Your task to perform on an android device: change text size in settings app Image 0: 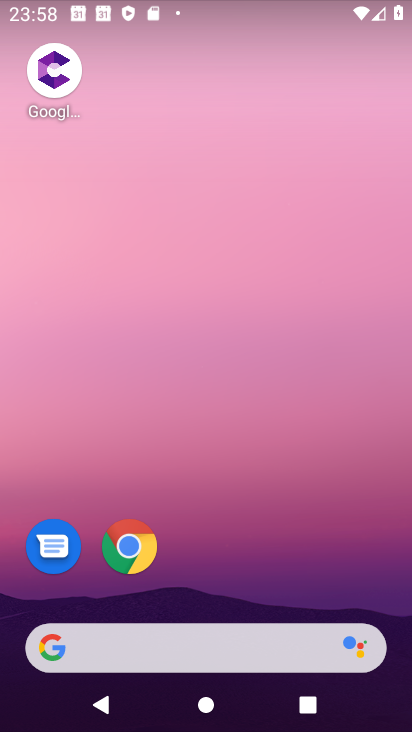
Step 0: drag from (235, 639) to (182, 85)
Your task to perform on an android device: change text size in settings app Image 1: 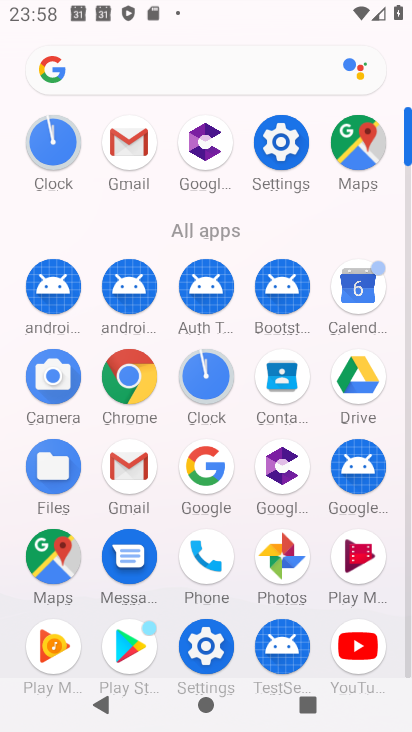
Step 1: click (296, 129)
Your task to perform on an android device: change text size in settings app Image 2: 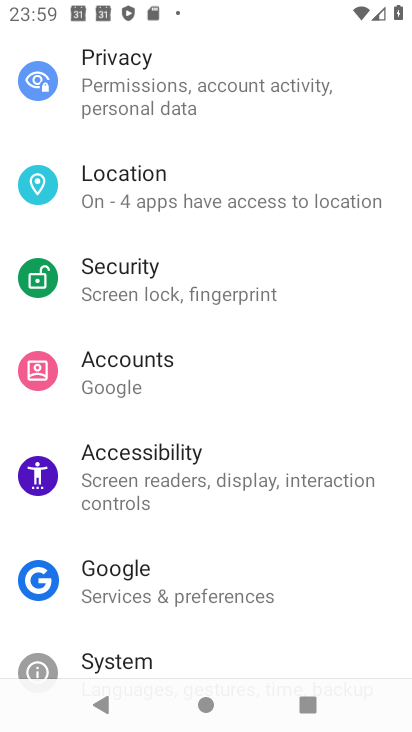
Step 2: drag from (157, 190) to (159, 567)
Your task to perform on an android device: change text size in settings app Image 3: 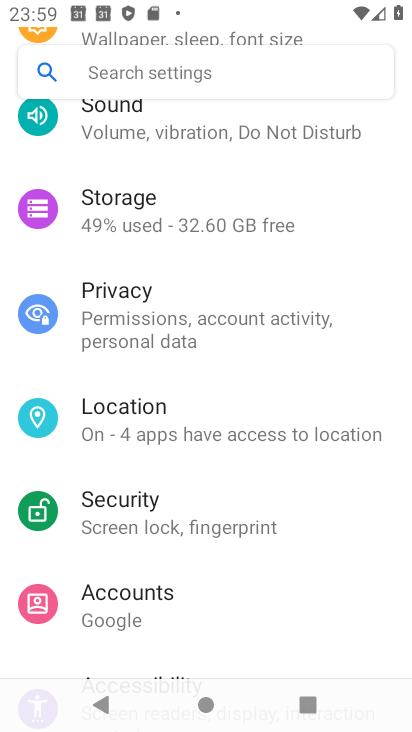
Step 3: drag from (147, 287) to (172, 588)
Your task to perform on an android device: change text size in settings app Image 4: 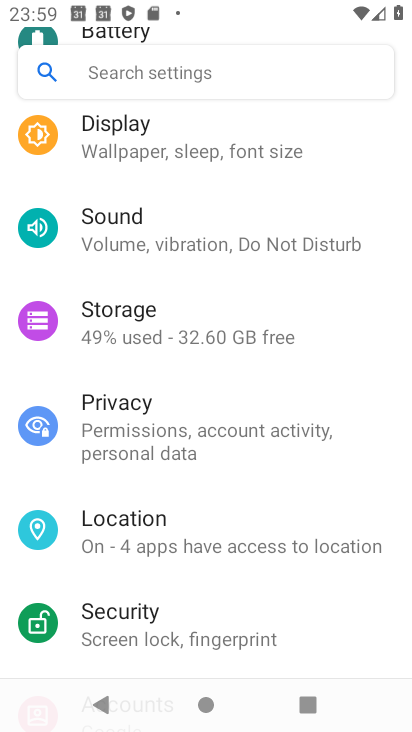
Step 4: click (132, 142)
Your task to perform on an android device: change text size in settings app Image 5: 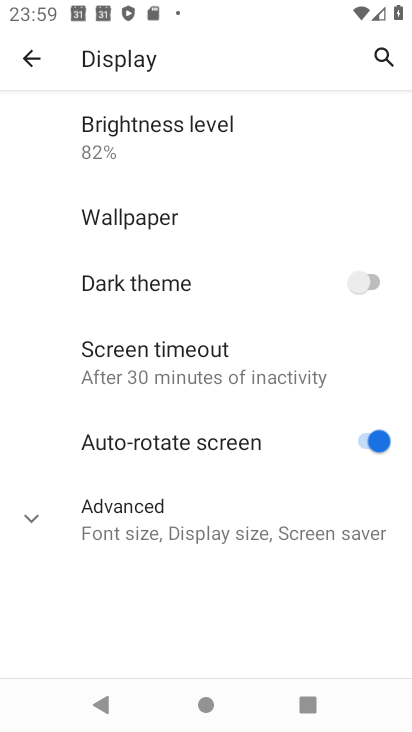
Step 5: click (156, 527)
Your task to perform on an android device: change text size in settings app Image 6: 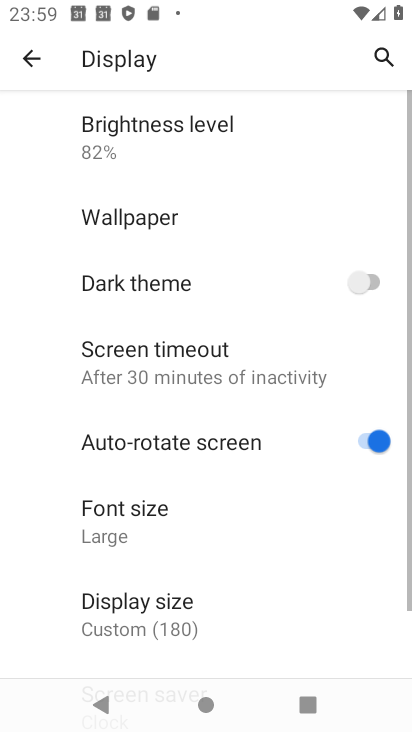
Step 6: click (116, 513)
Your task to perform on an android device: change text size in settings app Image 7: 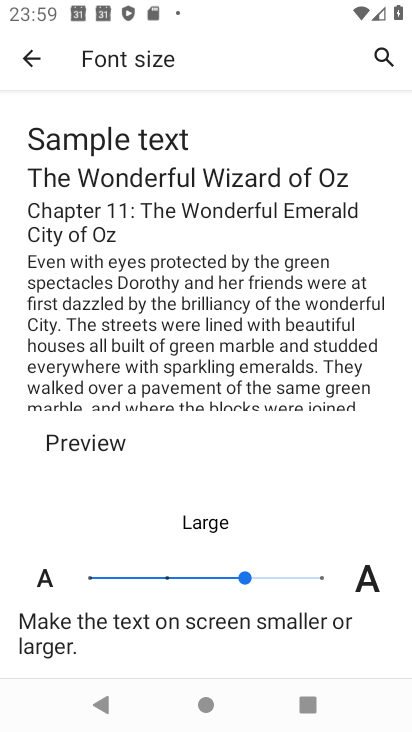
Step 7: click (319, 578)
Your task to perform on an android device: change text size in settings app Image 8: 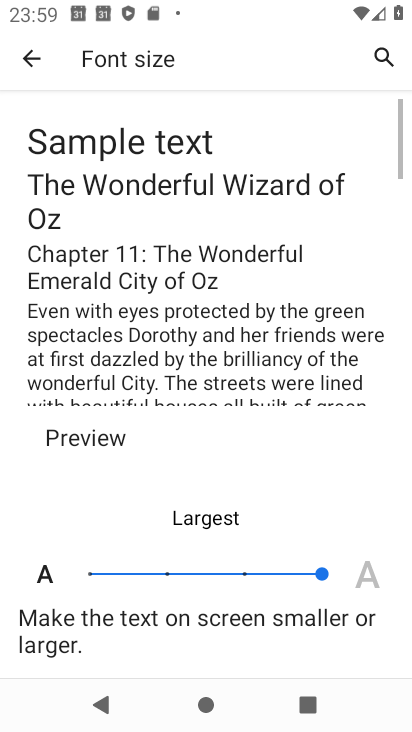
Step 8: task complete